Your task to perform on an android device: Go to Yahoo.com Image 0: 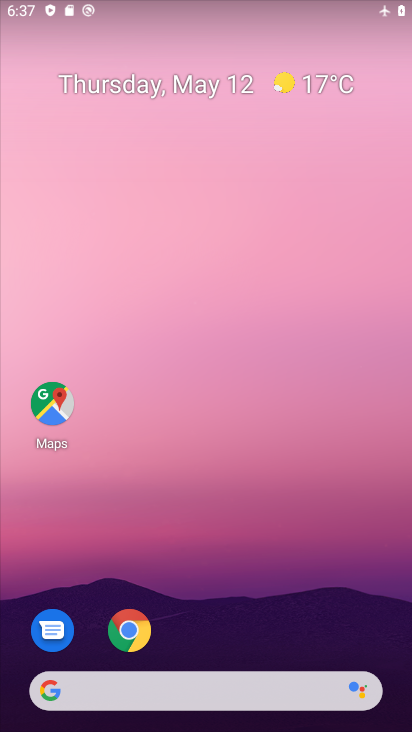
Step 0: drag from (250, 655) to (122, 40)
Your task to perform on an android device: Go to Yahoo.com Image 1: 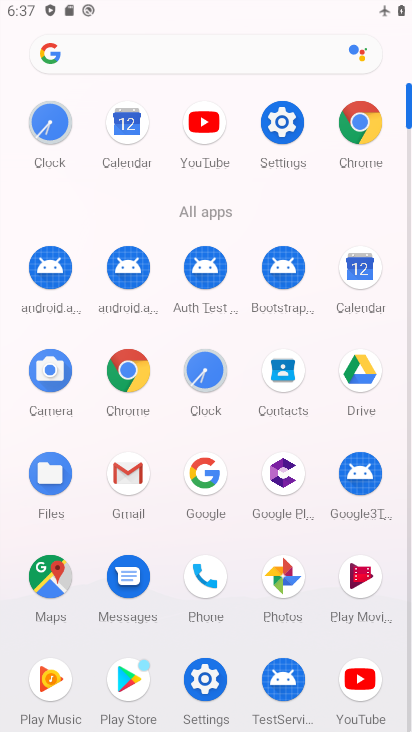
Step 1: click (127, 371)
Your task to perform on an android device: Go to Yahoo.com Image 2: 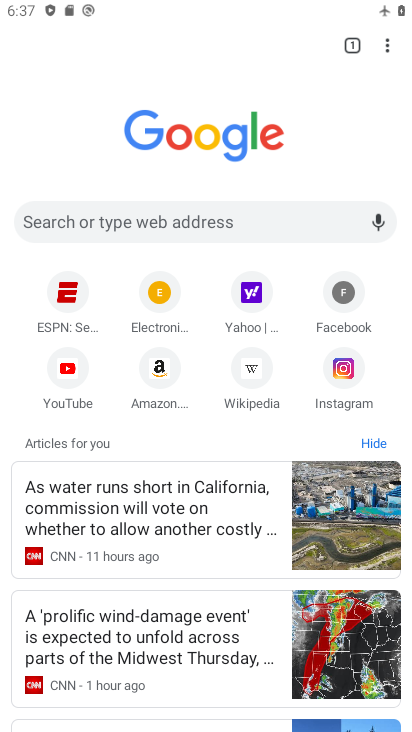
Step 2: click (242, 297)
Your task to perform on an android device: Go to Yahoo.com Image 3: 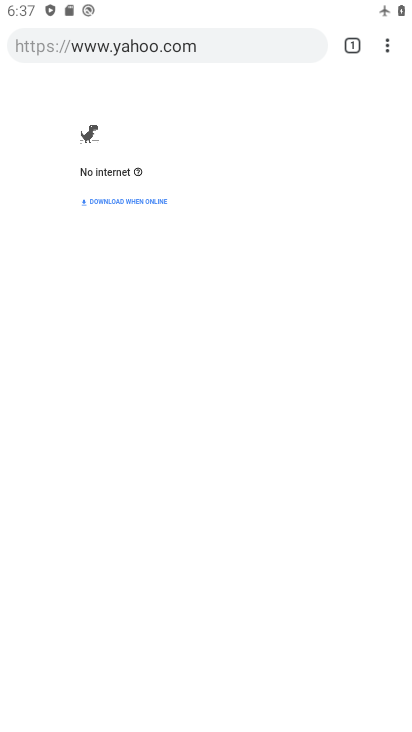
Step 3: task complete